Your task to perform on an android device: turn vacation reply on in the gmail app Image 0: 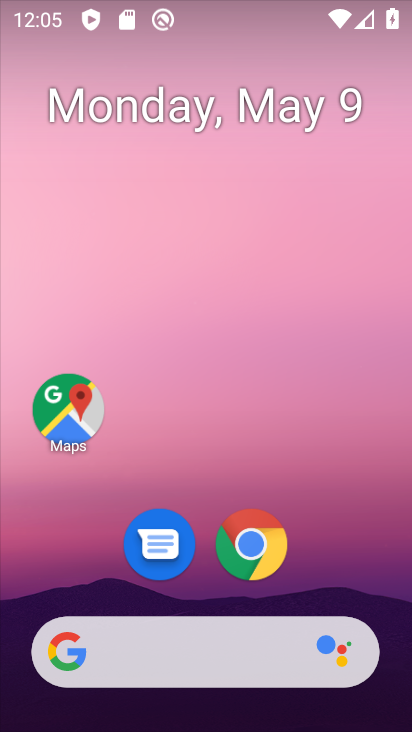
Step 0: drag from (379, 550) to (380, 5)
Your task to perform on an android device: turn vacation reply on in the gmail app Image 1: 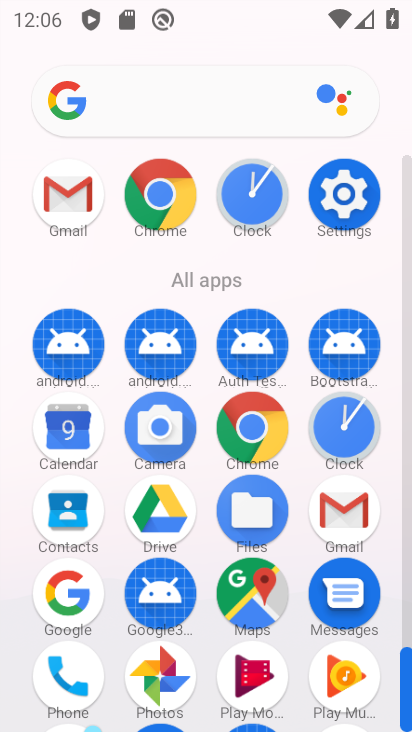
Step 1: click (337, 520)
Your task to perform on an android device: turn vacation reply on in the gmail app Image 2: 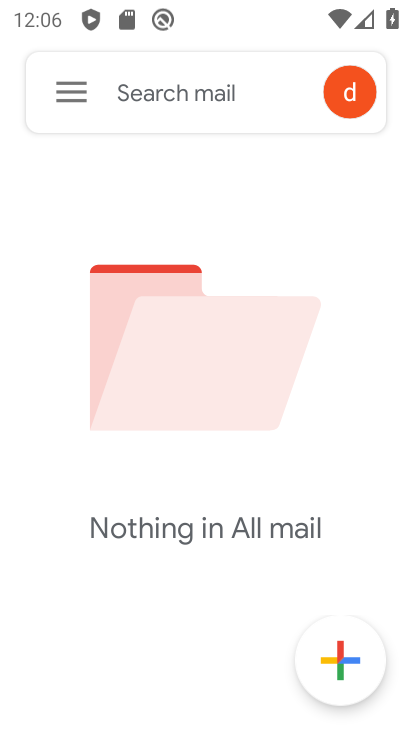
Step 2: click (70, 96)
Your task to perform on an android device: turn vacation reply on in the gmail app Image 3: 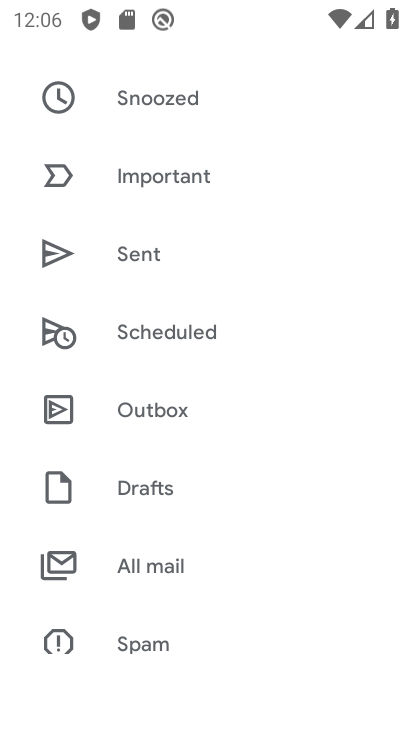
Step 3: drag from (236, 572) to (319, 150)
Your task to perform on an android device: turn vacation reply on in the gmail app Image 4: 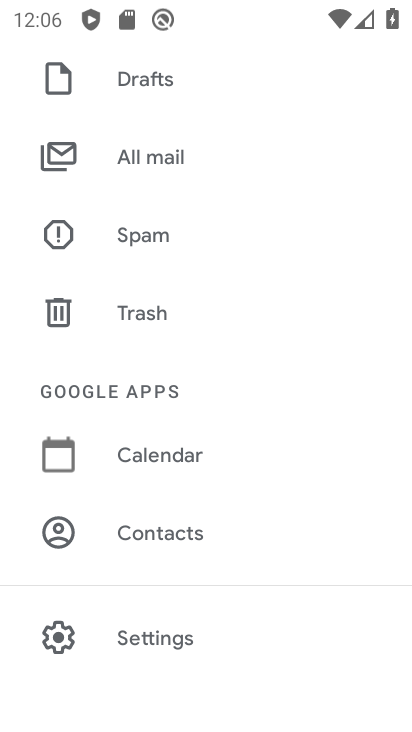
Step 4: click (191, 634)
Your task to perform on an android device: turn vacation reply on in the gmail app Image 5: 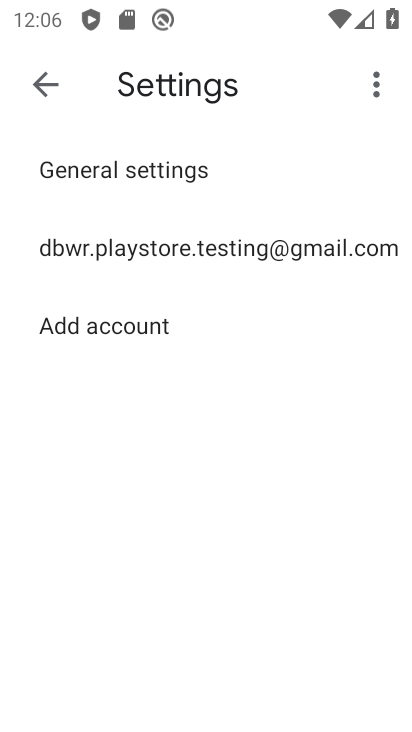
Step 5: click (238, 260)
Your task to perform on an android device: turn vacation reply on in the gmail app Image 6: 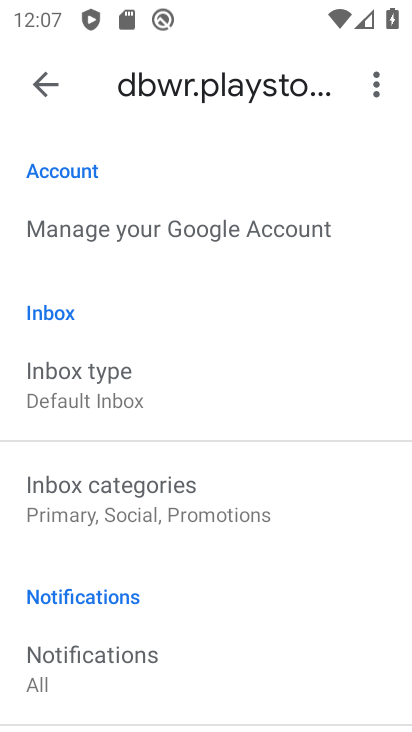
Step 6: drag from (238, 672) to (277, 140)
Your task to perform on an android device: turn vacation reply on in the gmail app Image 7: 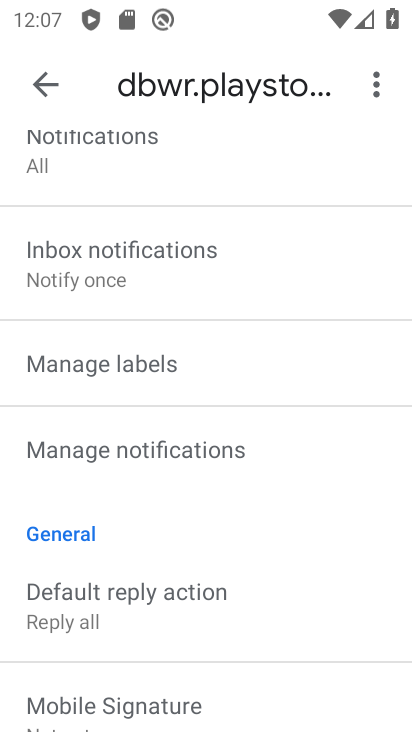
Step 7: click (48, 98)
Your task to perform on an android device: turn vacation reply on in the gmail app Image 8: 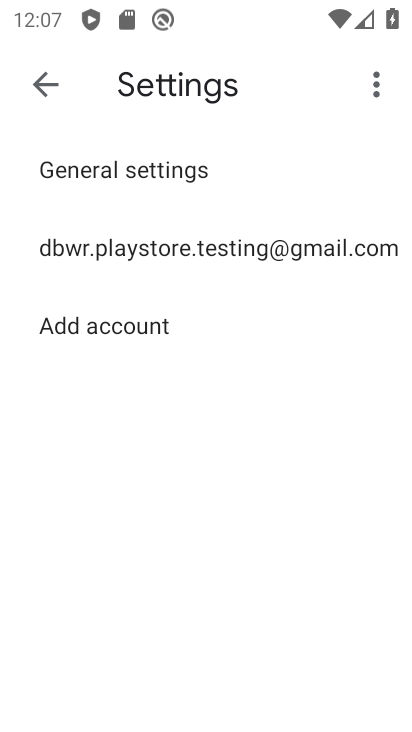
Step 8: click (68, 242)
Your task to perform on an android device: turn vacation reply on in the gmail app Image 9: 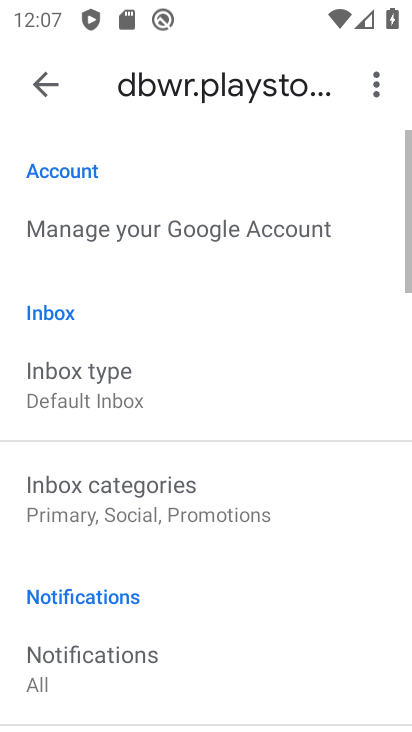
Step 9: drag from (92, 521) to (164, 98)
Your task to perform on an android device: turn vacation reply on in the gmail app Image 10: 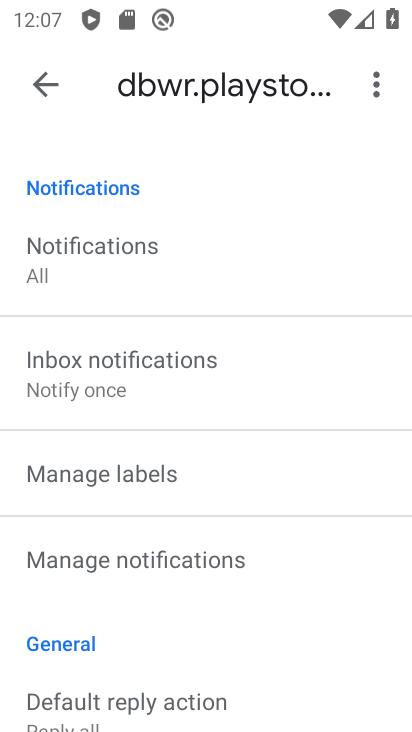
Step 10: drag from (167, 551) to (248, 94)
Your task to perform on an android device: turn vacation reply on in the gmail app Image 11: 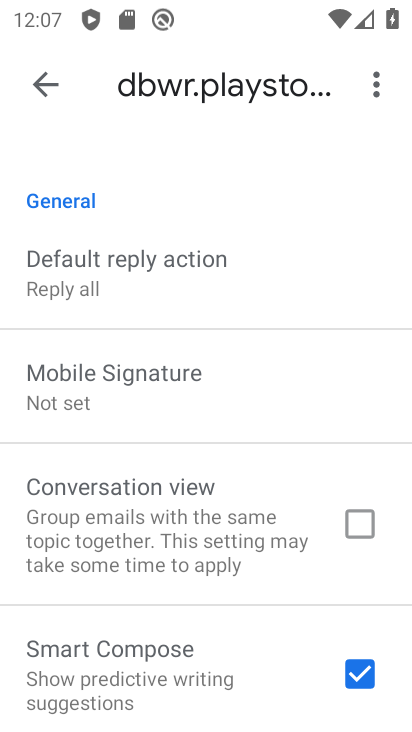
Step 11: drag from (131, 602) to (227, 90)
Your task to perform on an android device: turn vacation reply on in the gmail app Image 12: 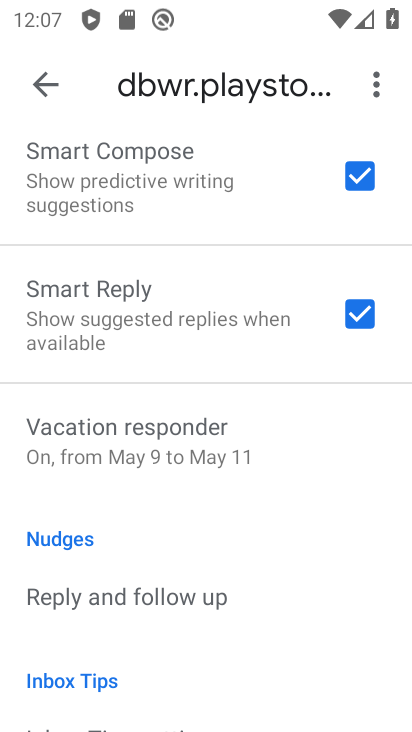
Step 12: click (145, 452)
Your task to perform on an android device: turn vacation reply on in the gmail app Image 13: 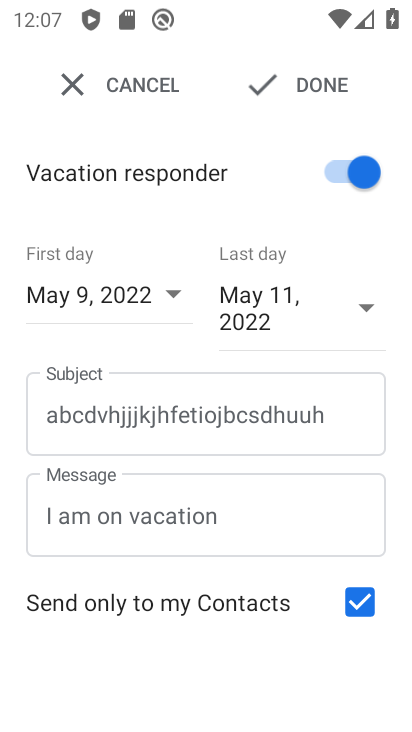
Step 13: task complete